Your task to perform on an android device: turn pop-ups on in chrome Image 0: 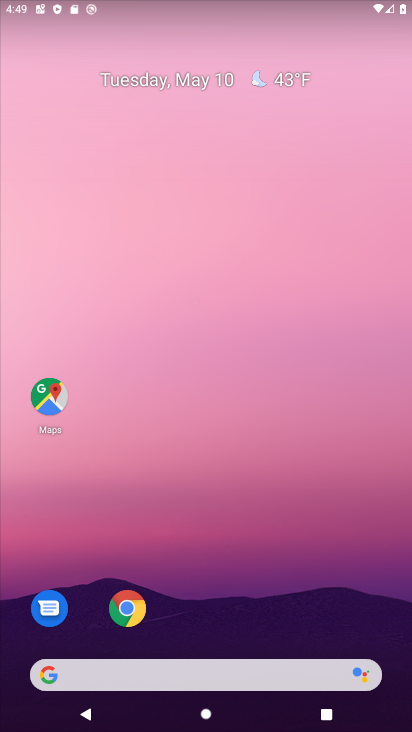
Step 0: click (117, 594)
Your task to perform on an android device: turn pop-ups on in chrome Image 1: 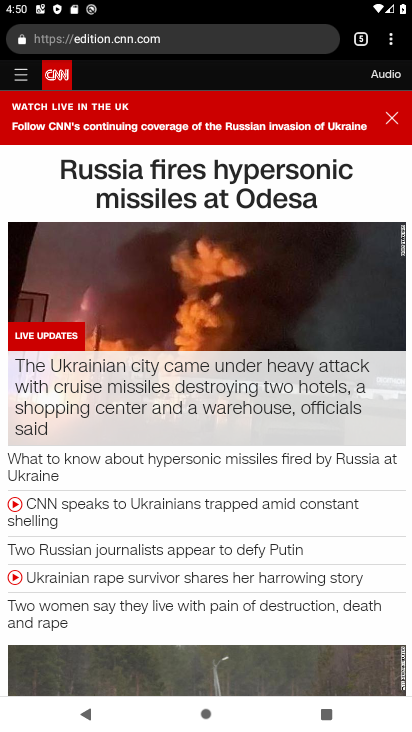
Step 1: click (393, 45)
Your task to perform on an android device: turn pop-ups on in chrome Image 2: 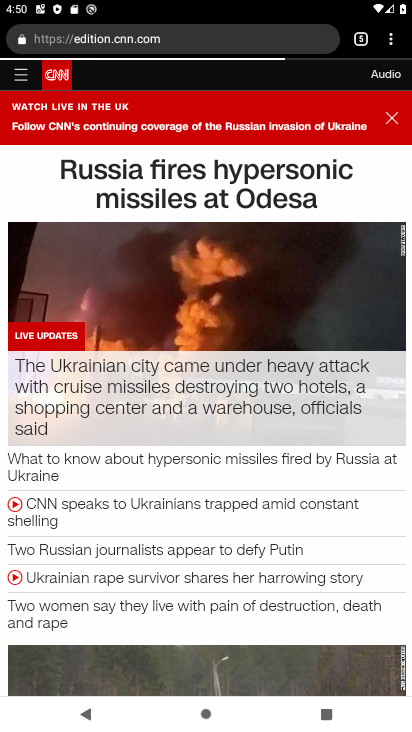
Step 2: drag from (393, 33) to (271, 434)
Your task to perform on an android device: turn pop-ups on in chrome Image 3: 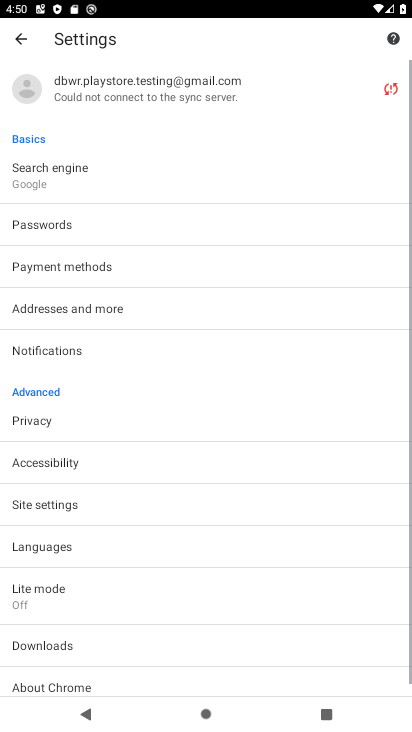
Step 3: drag from (148, 655) to (189, 467)
Your task to perform on an android device: turn pop-ups on in chrome Image 4: 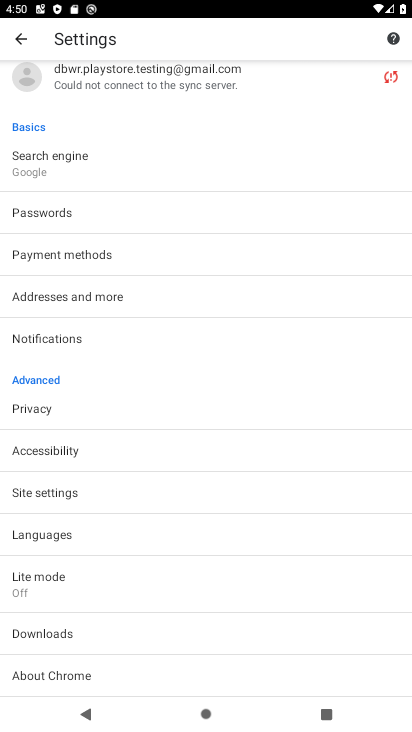
Step 4: click (123, 497)
Your task to perform on an android device: turn pop-ups on in chrome Image 5: 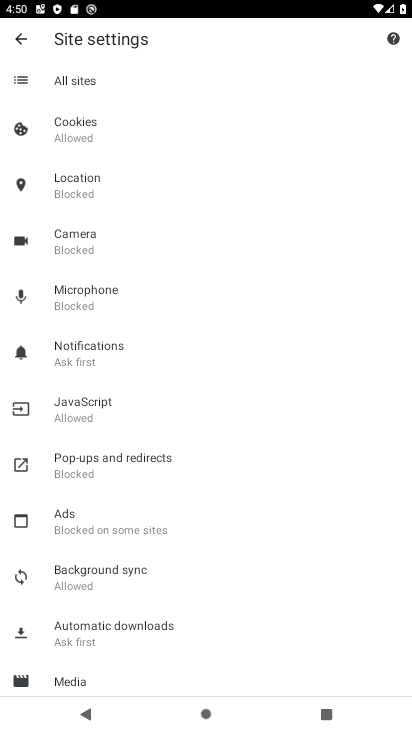
Step 5: click (118, 470)
Your task to perform on an android device: turn pop-ups on in chrome Image 6: 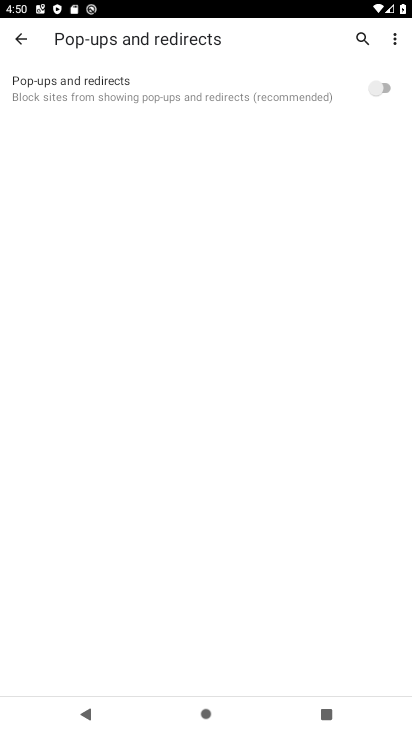
Step 6: click (386, 99)
Your task to perform on an android device: turn pop-ups on in chrome Image 7: 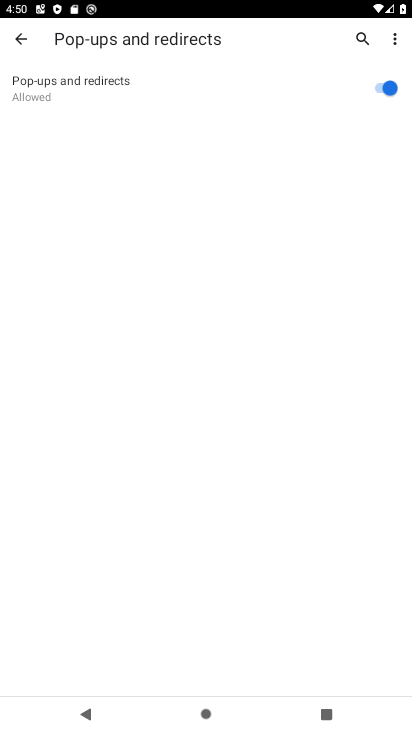
Step 7: task complete